Your task to perform on an android device: Empty the shopping cart on newegg.com. Search for "acer nitro" on newegg.com, select the first entry, add it to the cart, then select checkout. Image 0: 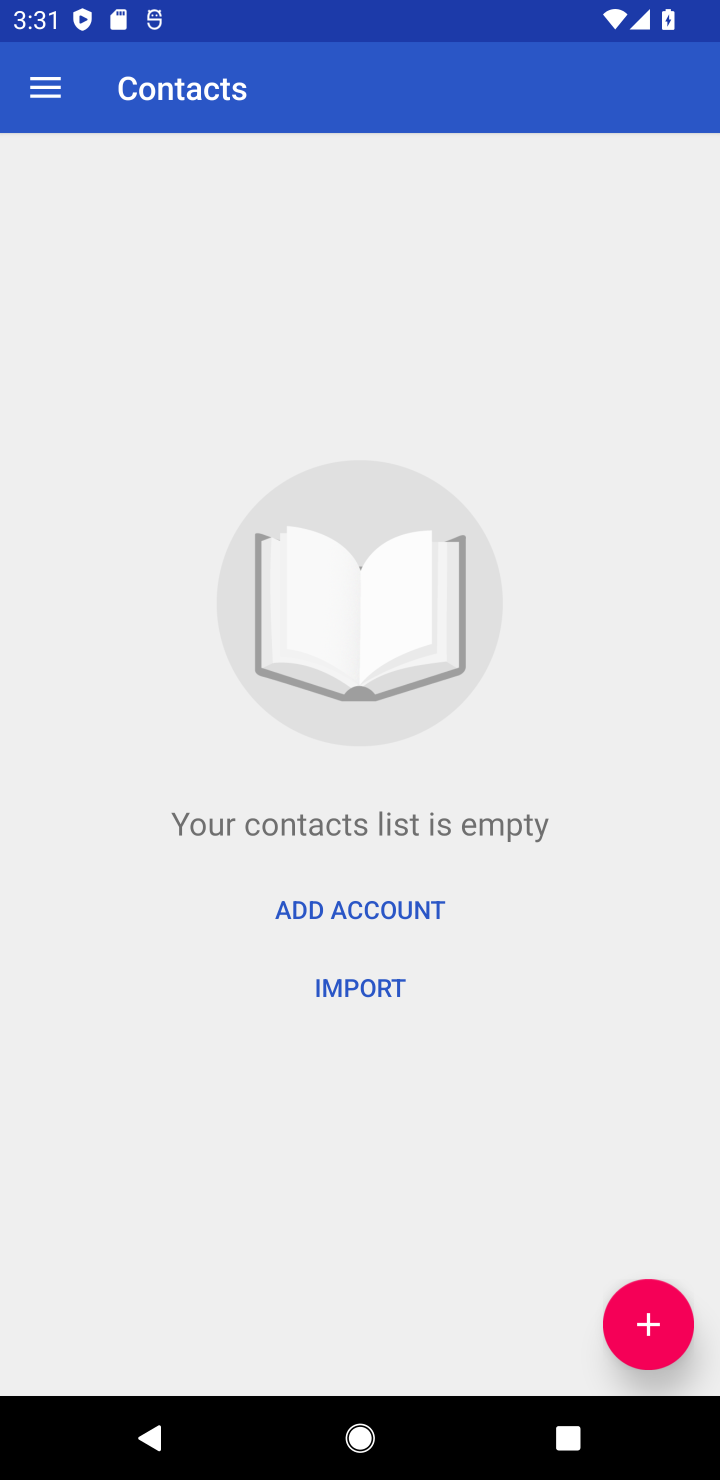
Step 0: press home button
Your task to perform on an android device: Empty the shopping cart on newegg.com. Search for "acer nitro" on newegg.com, select the first entry, add it to the cart, then select checkout. Image 1: 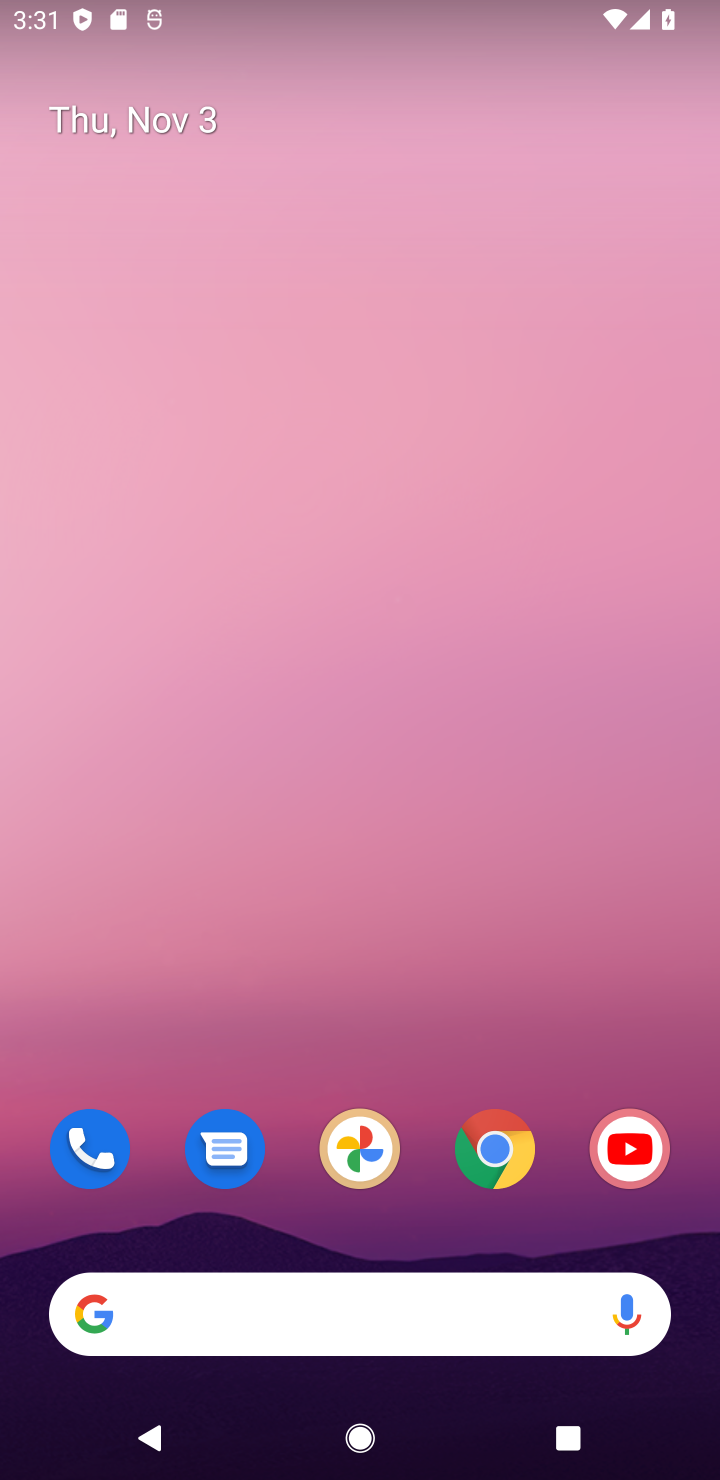
Step 1: click (478, 1165)
Your task to perform on an android device: Empty the shopping cart on newegg.com. Search for "acer nitro" on newegg.com, select the first entry, add it to the cart, then select checkout. Image 2: 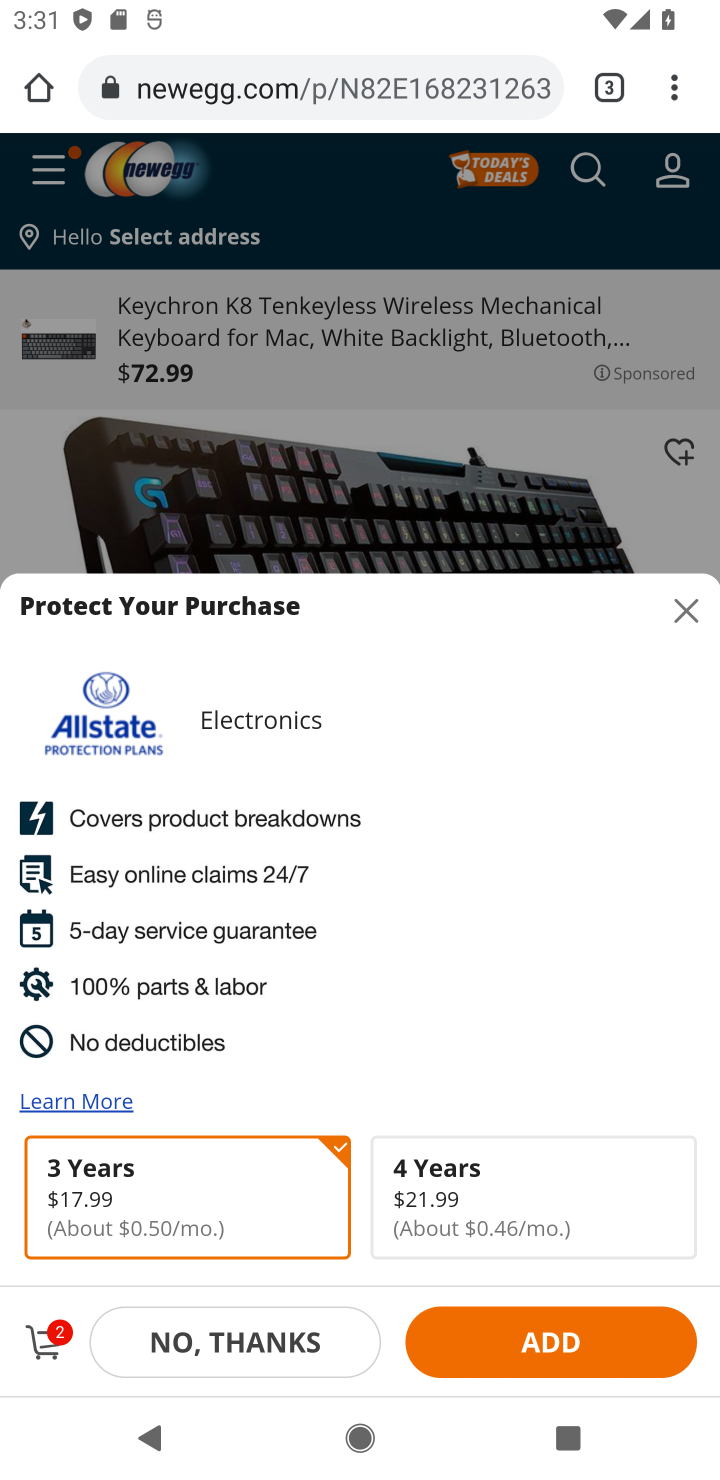
Step 2: click (612, 96)
Your task to perform on an android device: Empty the shopping cart on newegg.com. Search for "acer nitro" on newegg.com, select the first entry, add it to the cart, then select checkout. Image 3: 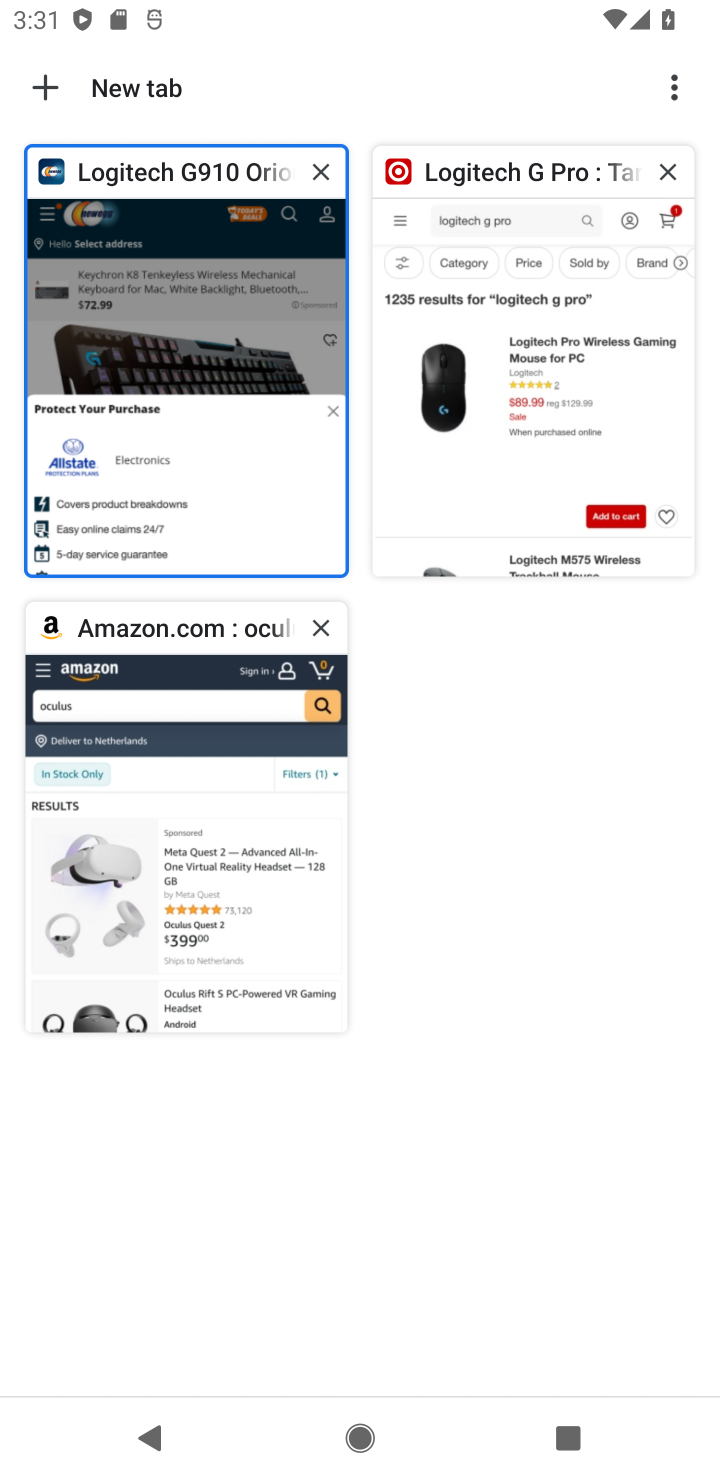
Step 3: click (176, 863)
Your task to perform on an android device: Empty the shopping cart on newegg.com. Search for "acer nitro" on newegg.com, select the first entry, add it to the cart, then select checkout. Image 4: 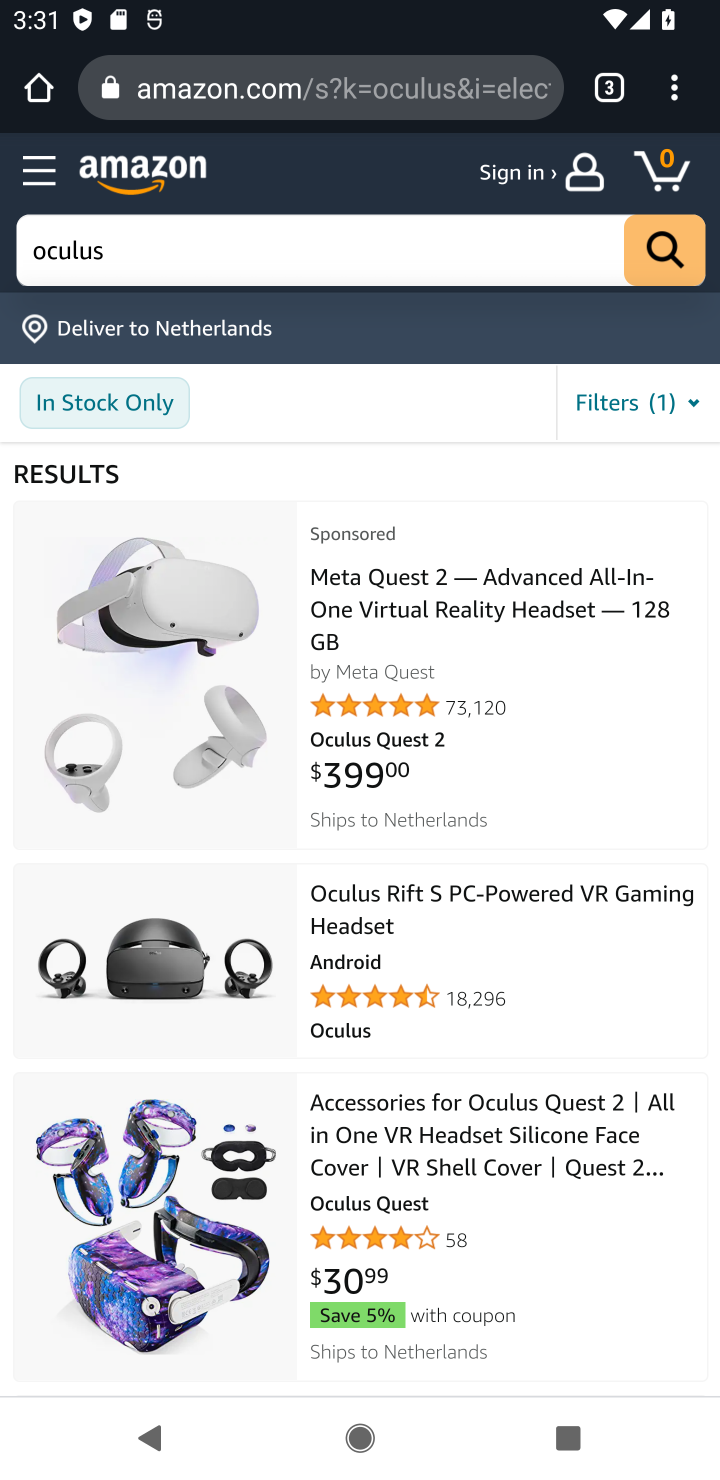
Step 4: click (170, 254)
Your task to perform on an android device: Empty the shopping cart on newegg.com. Search for "acer nitro" on newegg.com, select the first entry, add it to the cart, then select checkout. Image 5: 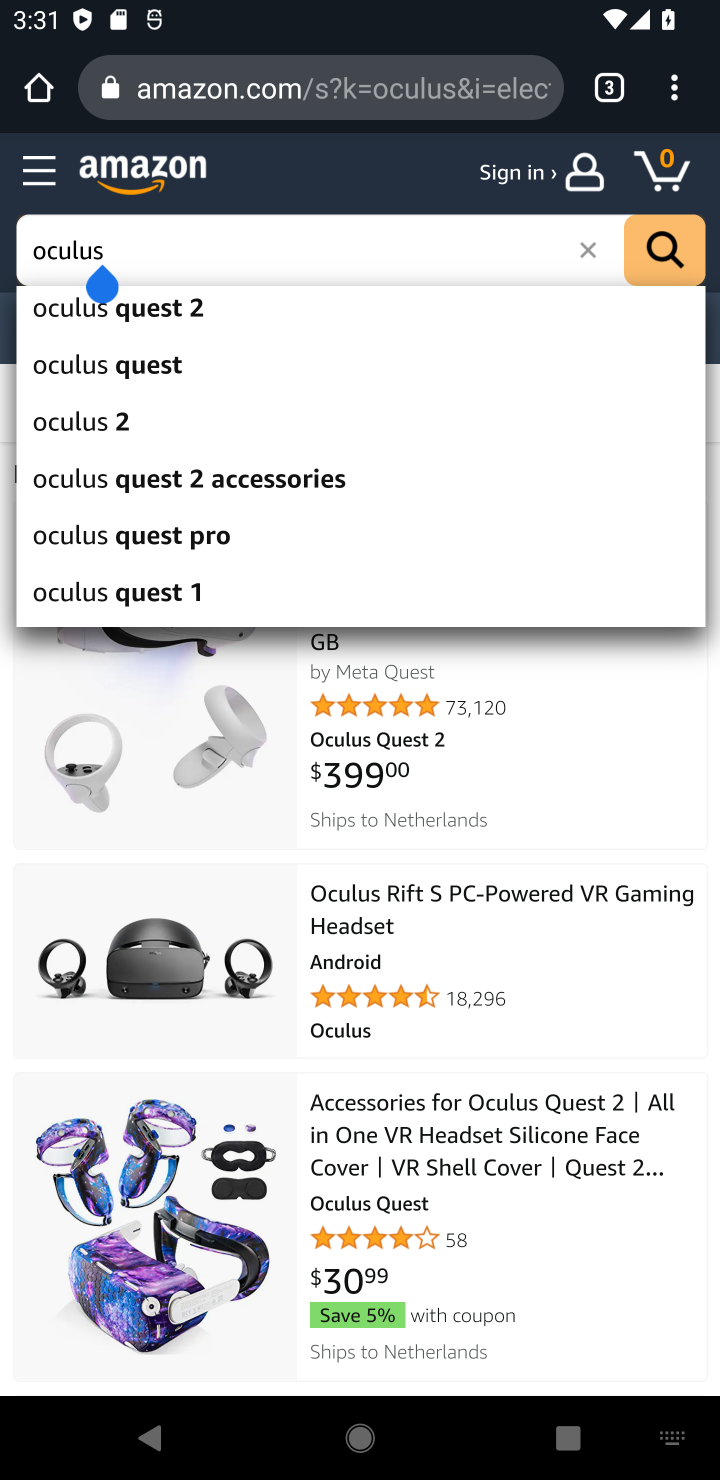
Step 5: click (588, 253)
Your task to perform on an android device: Empty the shopping cart on newegg.com. Search for "acer nitro" on newegg.com, select the first entry, add it to the cart, then select checkout. Image 6: 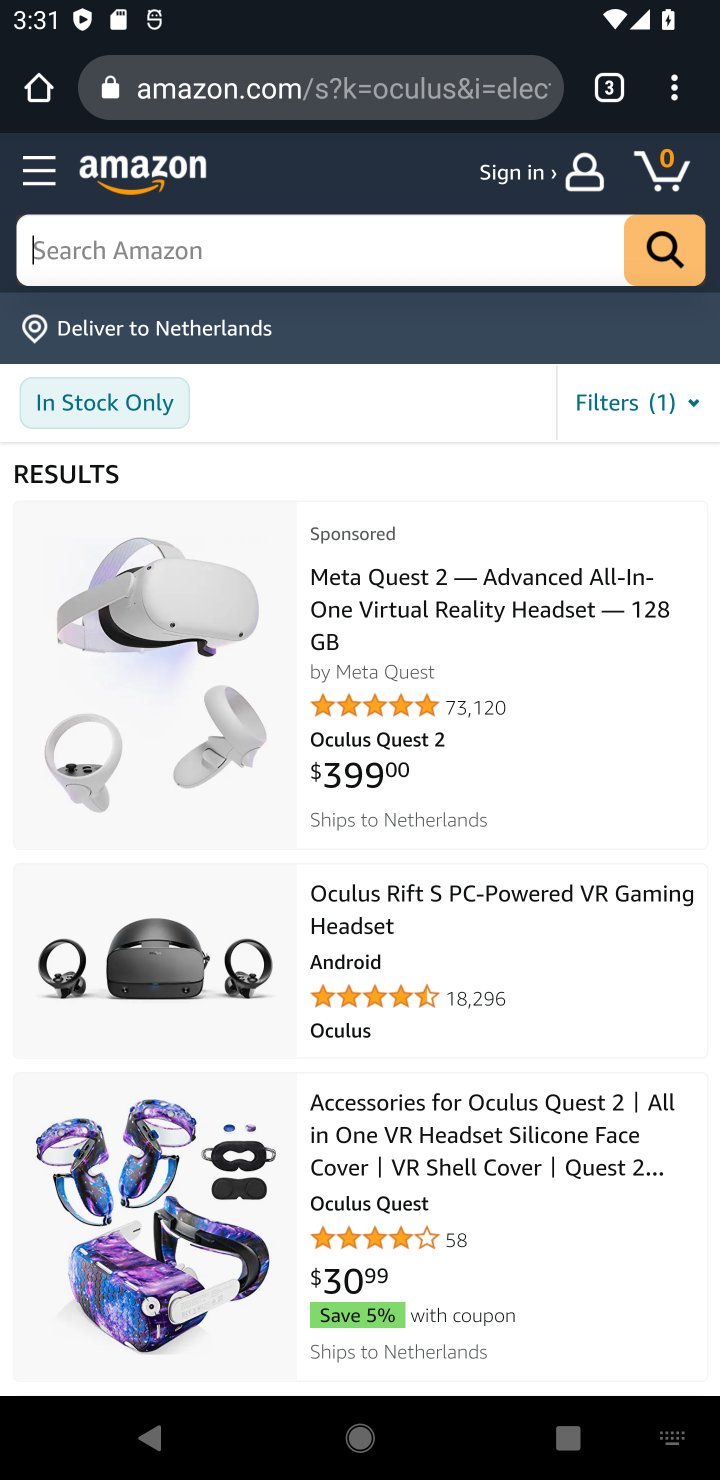
Step 6: type "logitech g91"
Your task to perform on an android device: Empty the shopping cart on newegg.com. Search for "acer nitro" on newegg.com, select the first entry, add it to the cart, then select checkout. Image 7: 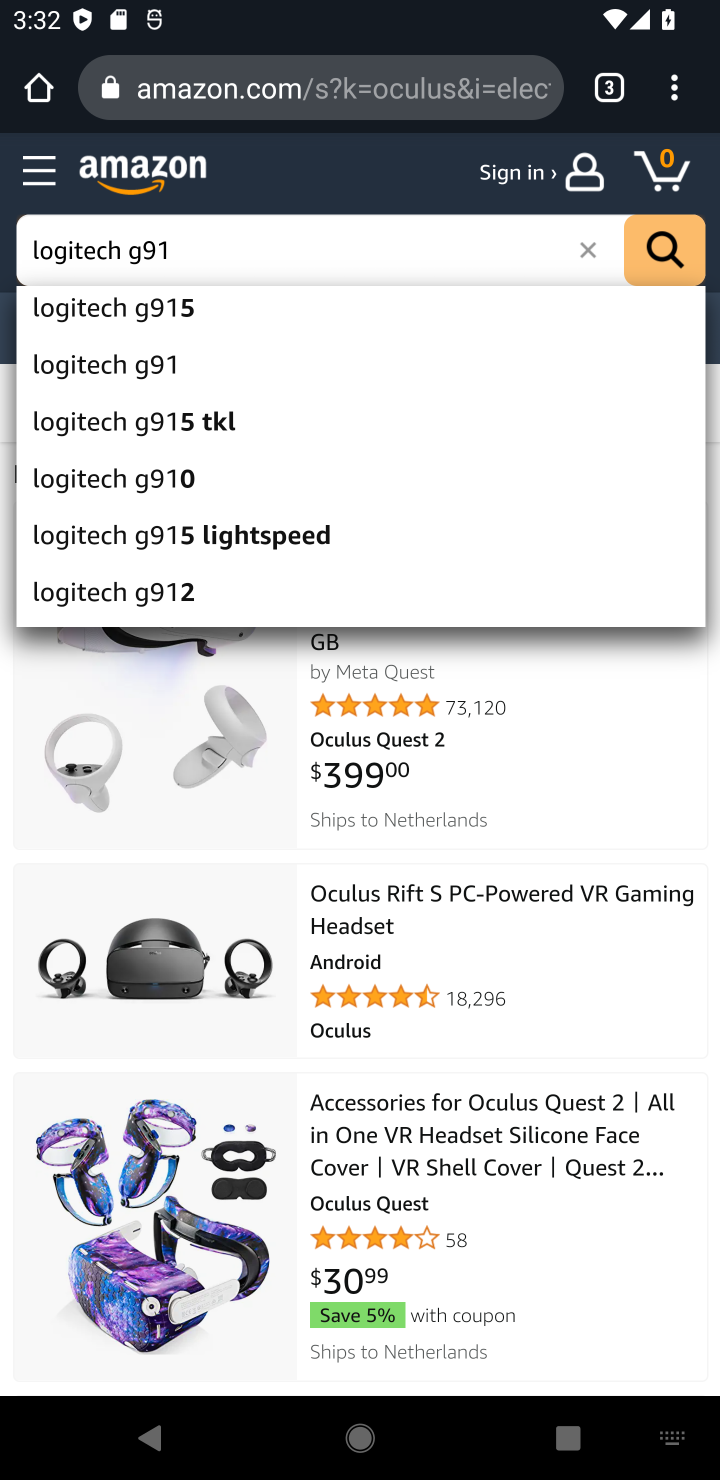
Step 7: click (582, 243)
Your task to perform on an android device: Empty the shopping cart on newegg.com. Search for "acer nitro" on newegg.com, select the first entry, add it to the cart, then select checkout. Image 8: 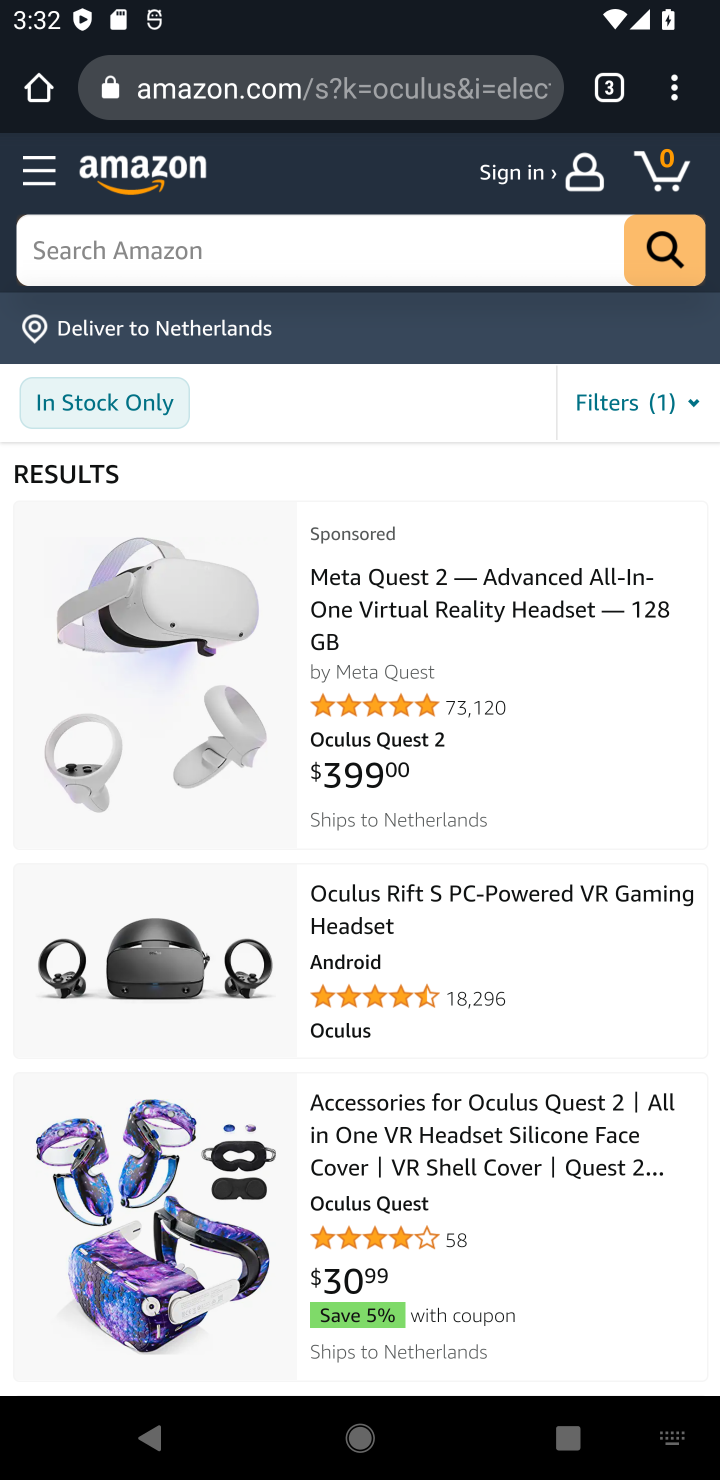
Step 8: type "acer nitro"
Your task to perform on an android device: Empty the shopping cart on newegg.com. Search for "acer nitro" on newegg.com, select the first entry, add it to the cart, then select checkout. Image 9: 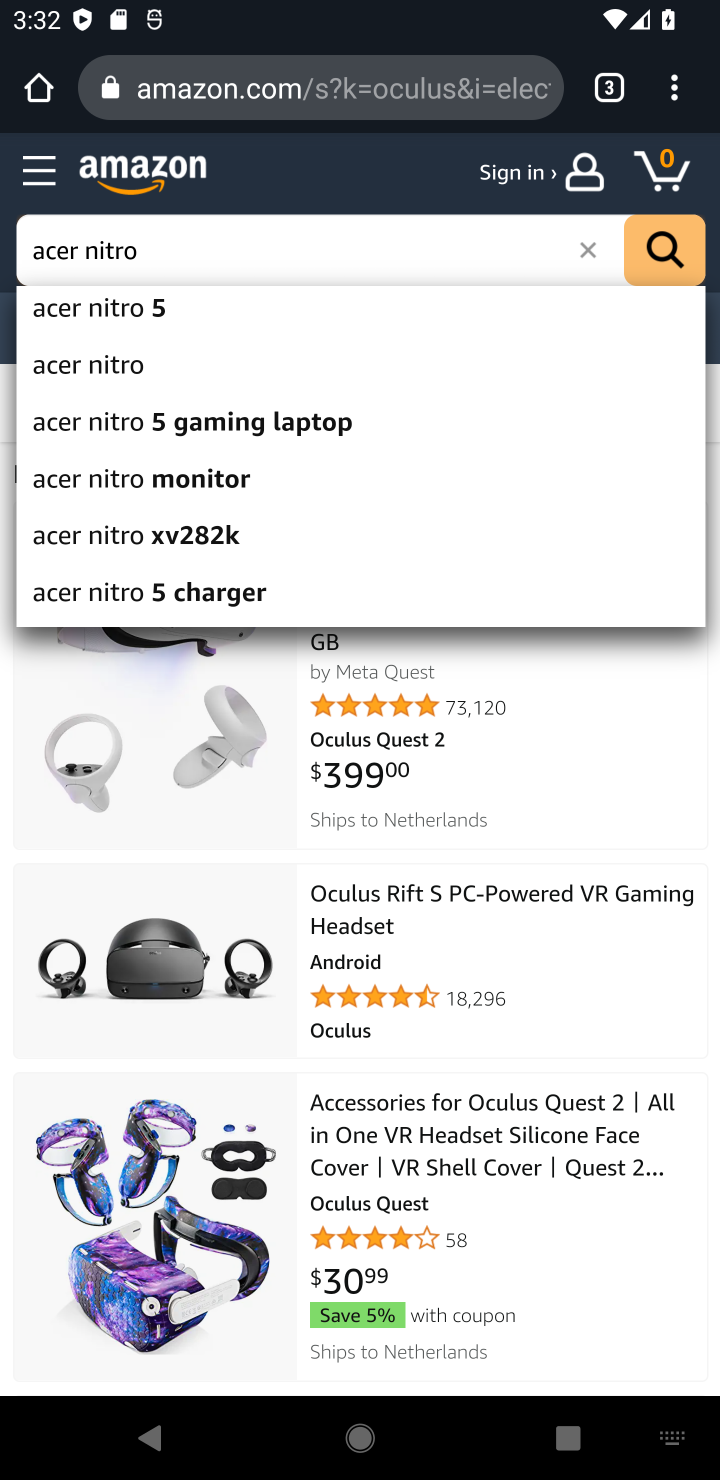
Step 9: click (88, 298)
Your task to perform on an android device: Empty the shopping cart on newegg.com. Search for "acer nitro" on newegg.com, select the first entry, add it to the cart, then select checkout. Image 10: 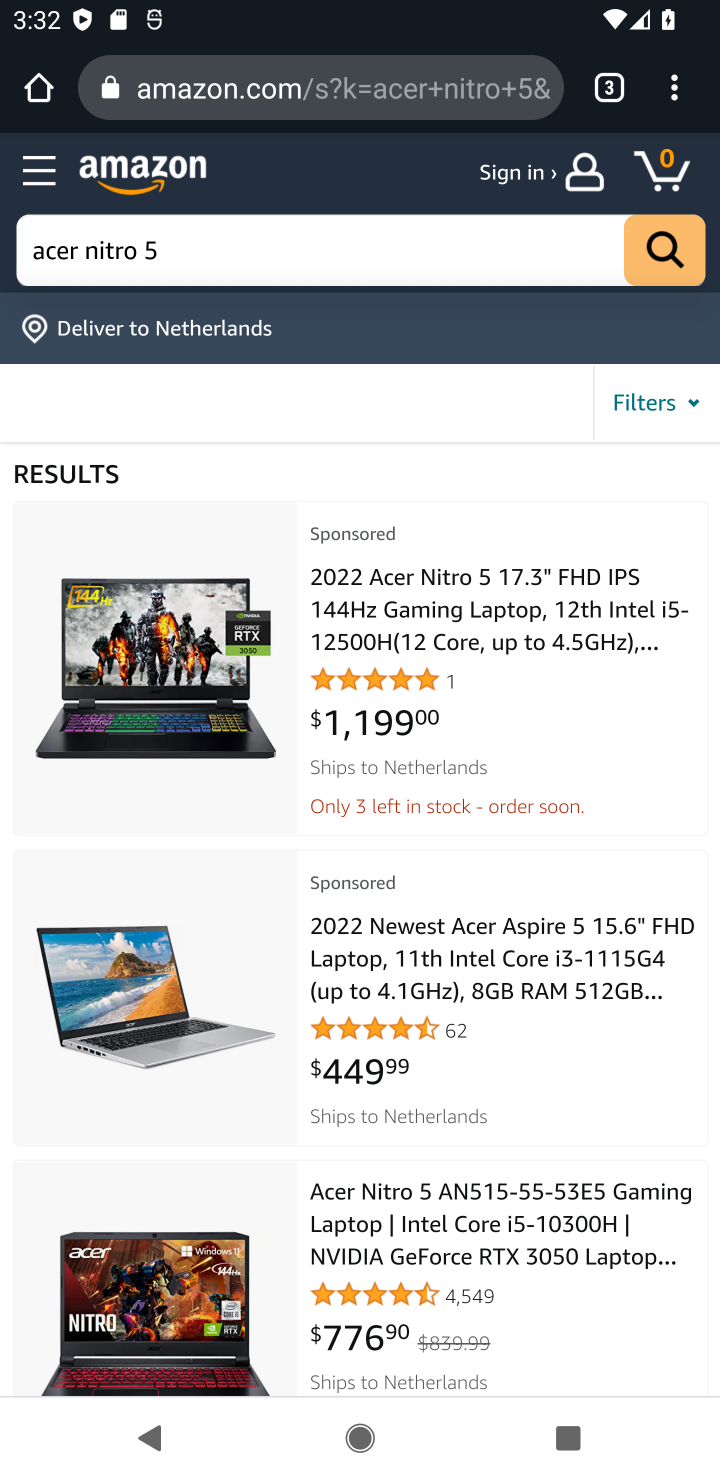
Step 10: click (429, 1249)
Your task to perform on an android device: Empty the shopping cart on newegg.com. Search for "acer nitro" on newegg.com, select the first entry, add it to the cart, then select checkout. Image 11: 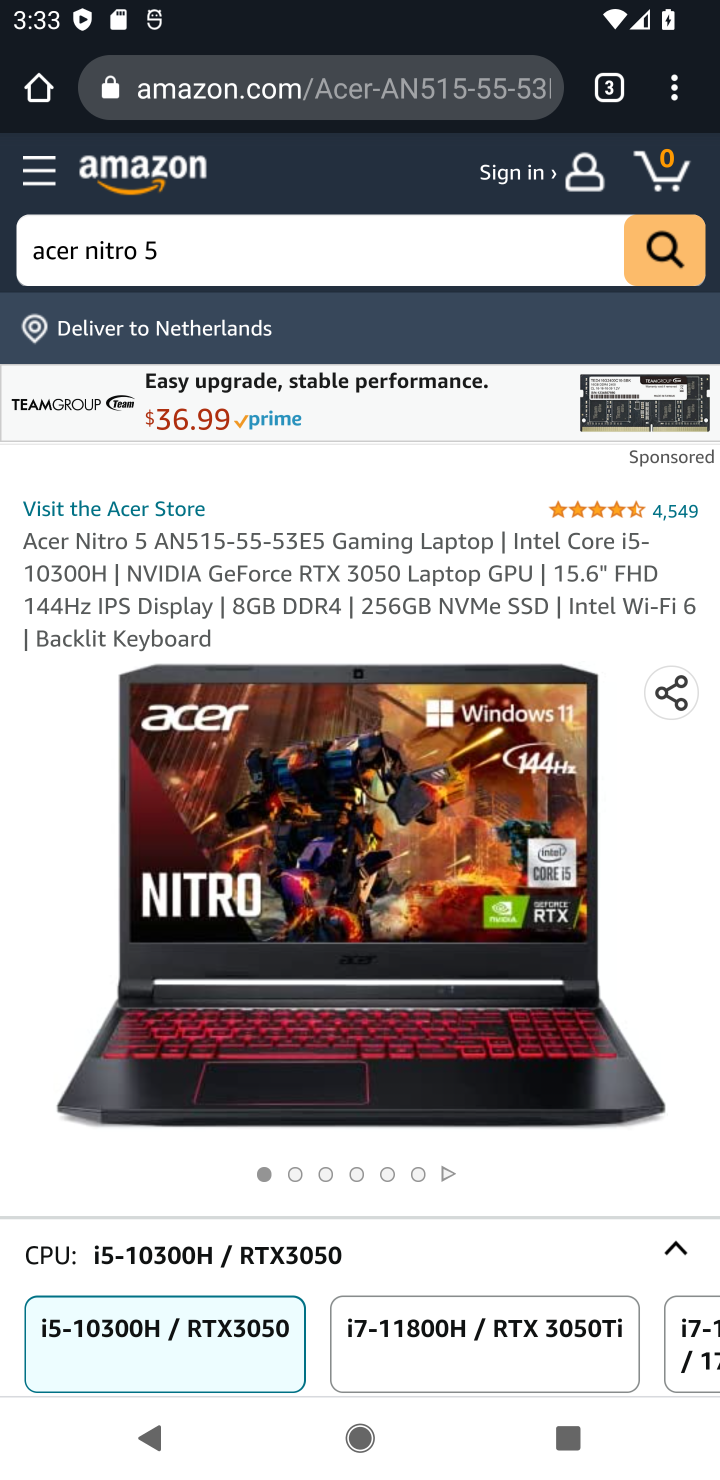
Step 11: drag from (266, 609) to (303, 453)
Your task to perform on an android device: Empty the shopping cart on newegg.com. Search for "acer nitro" on newegg.com, select the first entry, add it to the cart, then select checkout. Image 12: 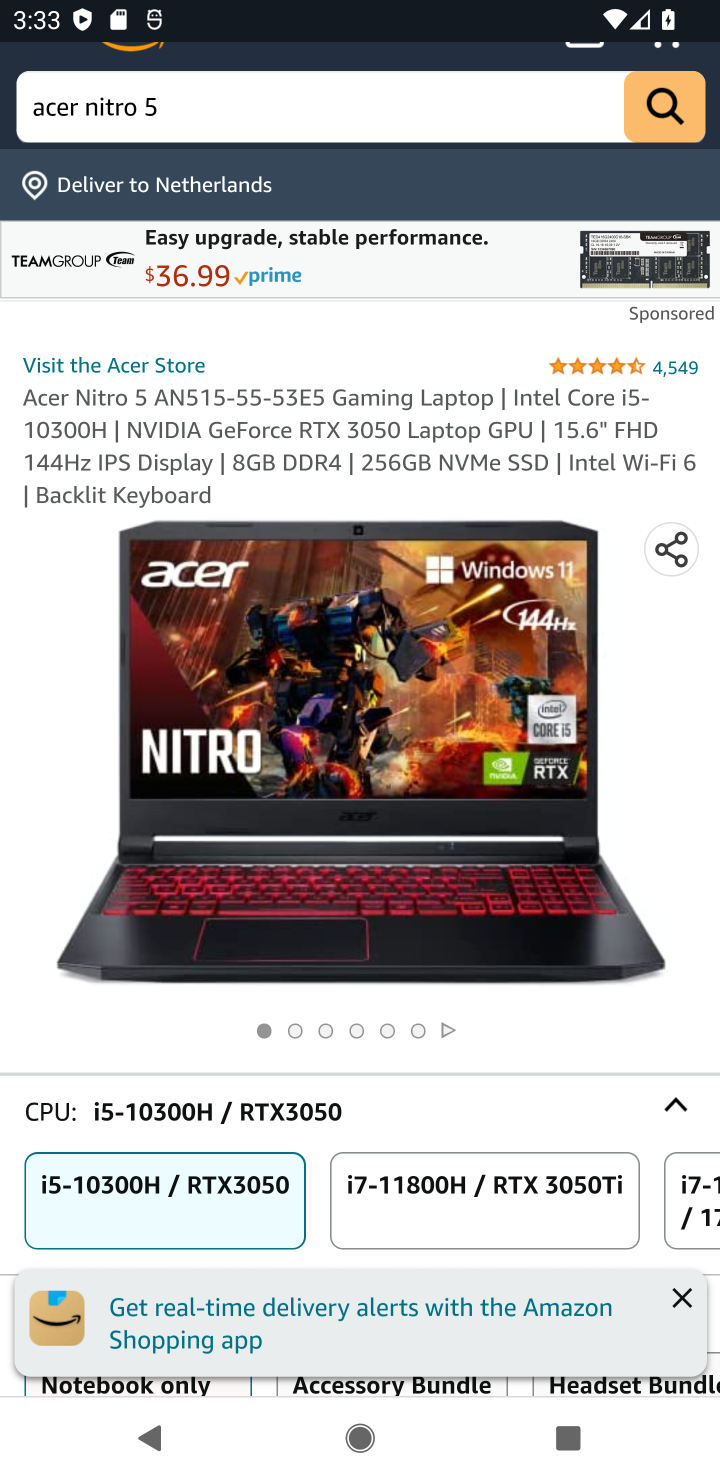
Step 12: drag from (344, 1284) to (431, 457)
Your task to perform on an android device: Empty the shopping cart on newegg.com. Search for "acer nitro" on newegg.com, select the first entry, add it to the cart, then select checkout. Image 13: 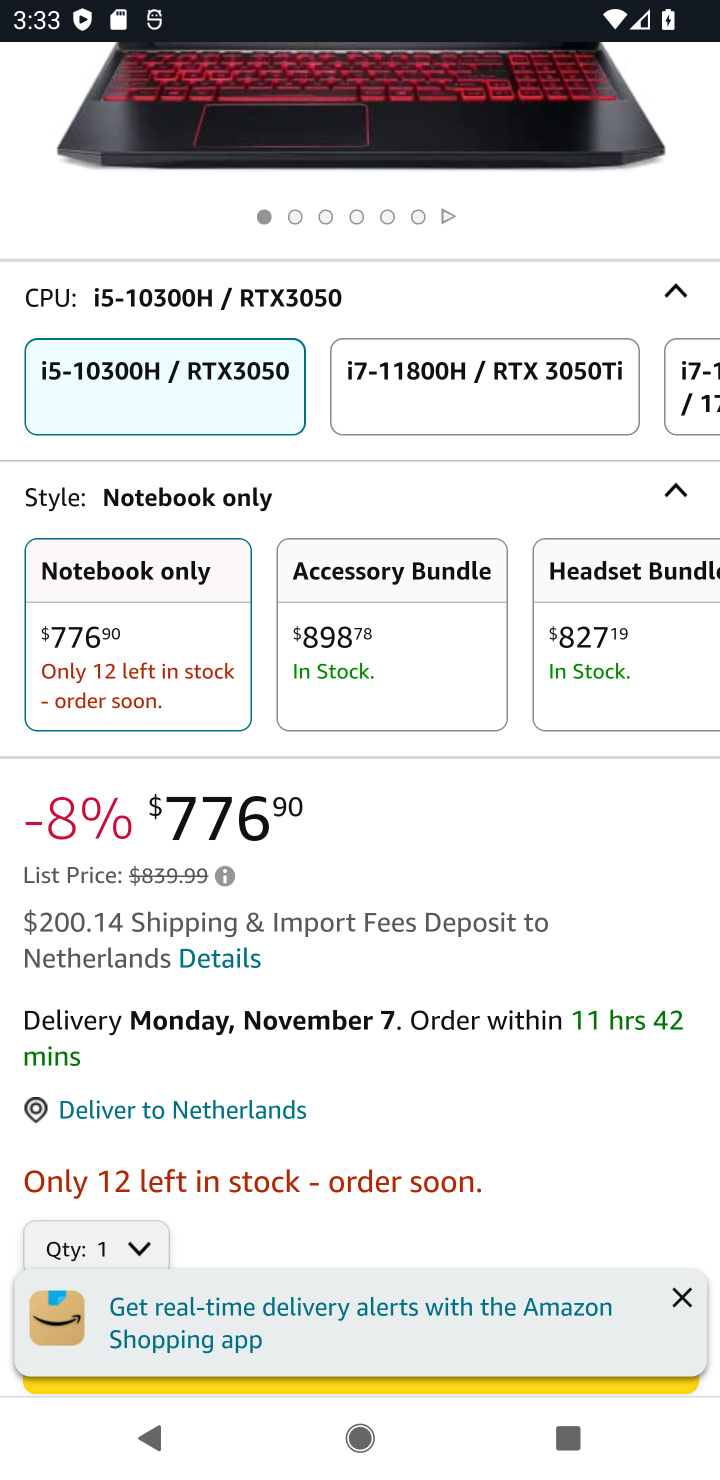
Step 13: drag from (332, 1102) to (257, 430)
Your task to perform on an android device: Empty the shopping cart on newegg.com. Search for "acer nitro" on newegg.com, select the first entry, add it to the cart, then select checkout. Image 14: 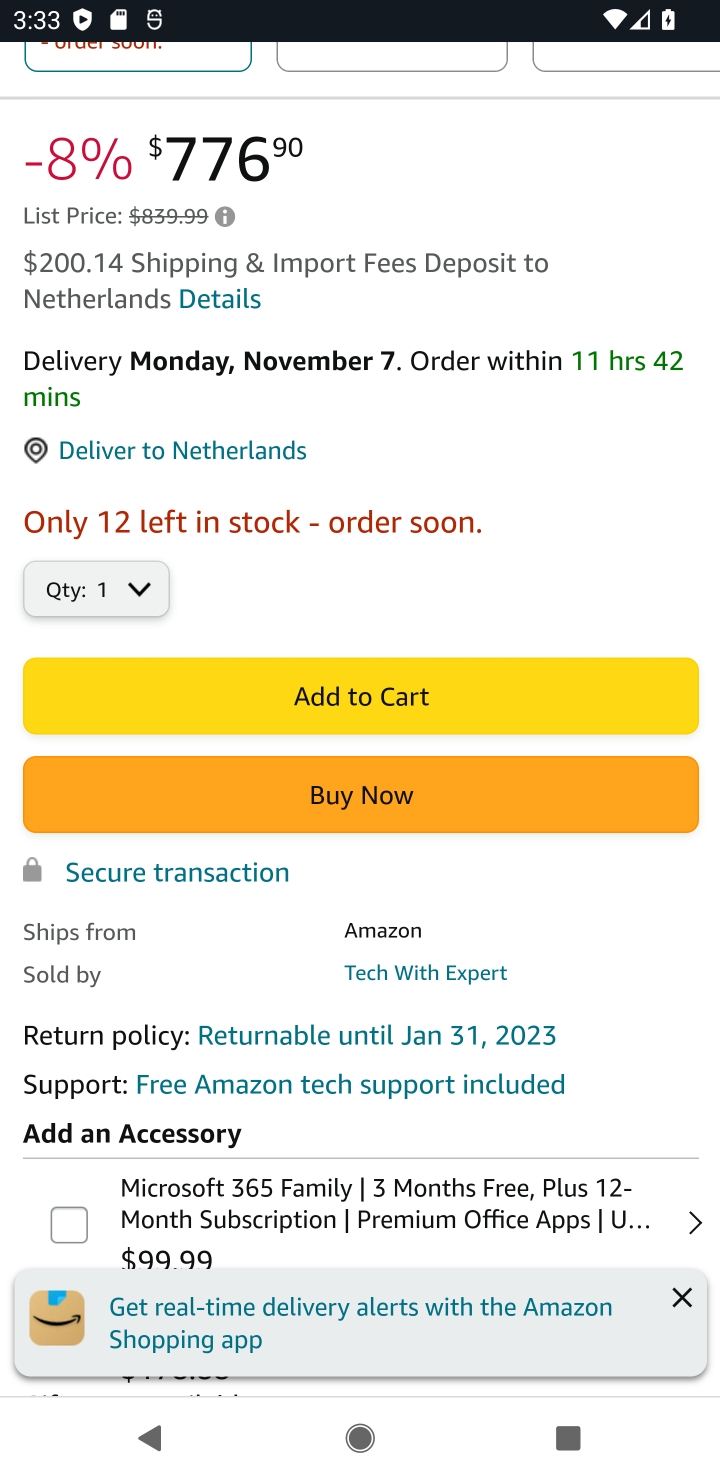
Step 14: click (367, 699)
Your task to perform on an android device: Empty the shopping cart on newegg.com. Search for "acer nitro" on newegg.com, select the first entry, add it to the cart, then select checkout. Image 15: 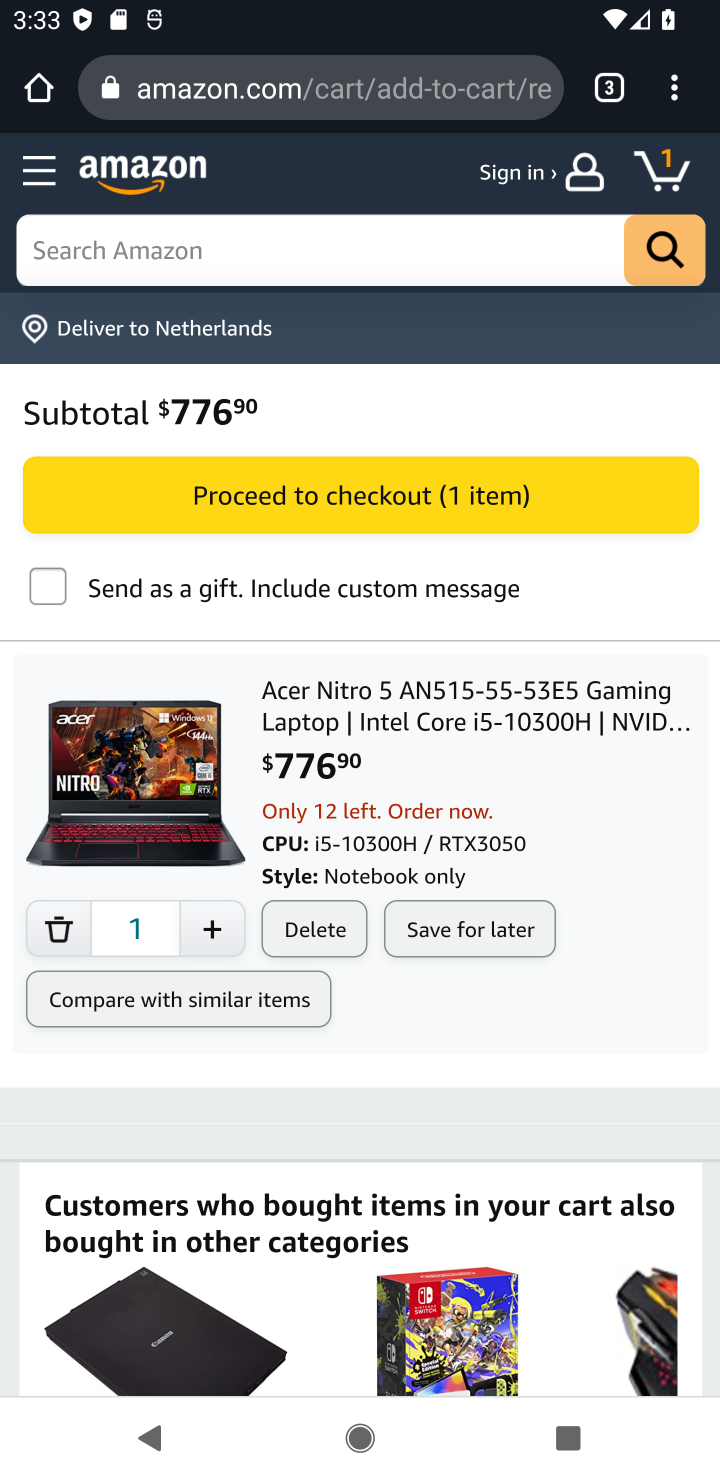
Step 15: task complete